Your task to perform on an android device: toggle wifi Image 0: 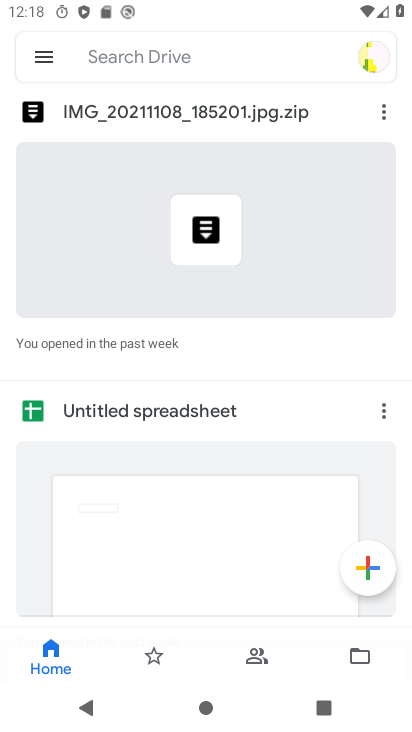
Step 0: press home button
Your task to perform on an android device: toggle wifi Image 1: 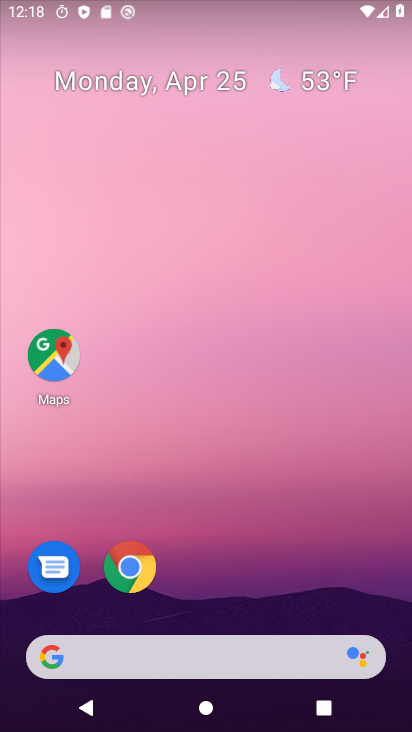
Step 1: drag from (221, 542) to (224, 17)
Your task to perform on an android device: toggle wifi Image 2: 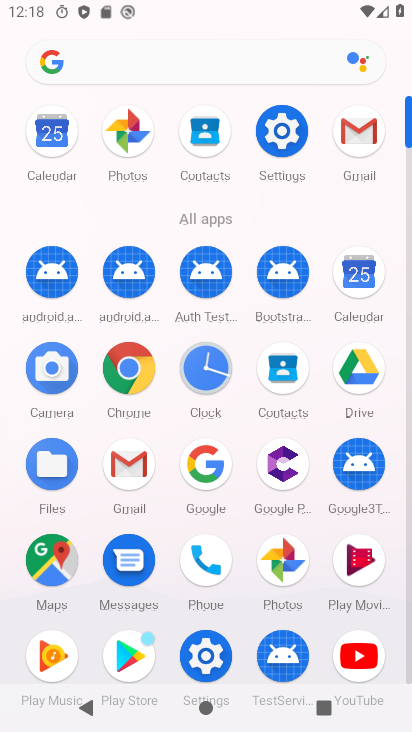
Step 2: click (279, 122)
Your task to perform on an android device: toggle wifi Image 3: 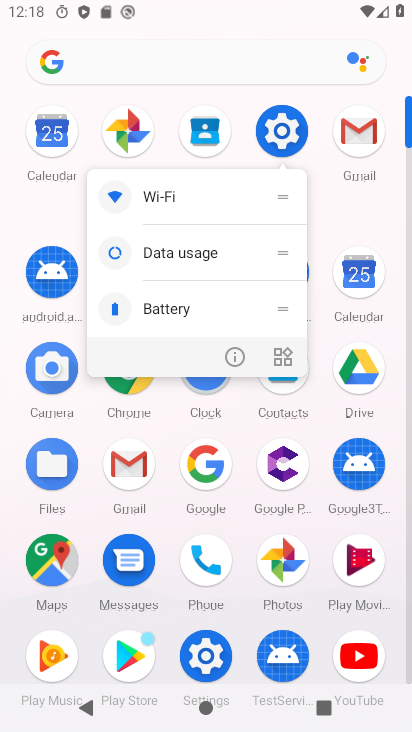
Step 3: click (279, 122)
Your task to perform on an android device: toggle wifi Image 4: 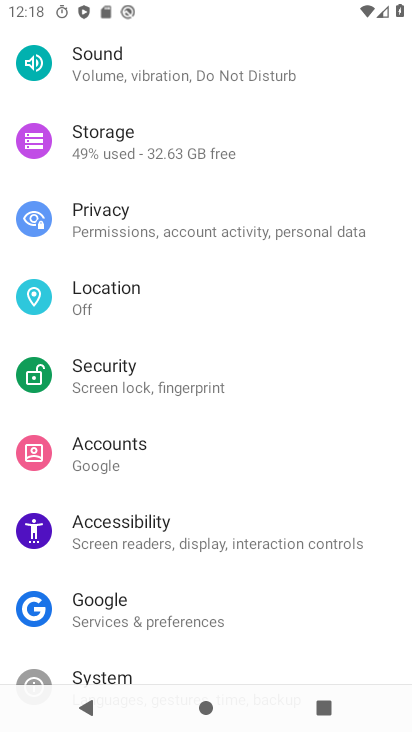
Step 4: drag from (279, 122) to (265, 573)
Your task to perform on an android device: toggle wifi Image 5: 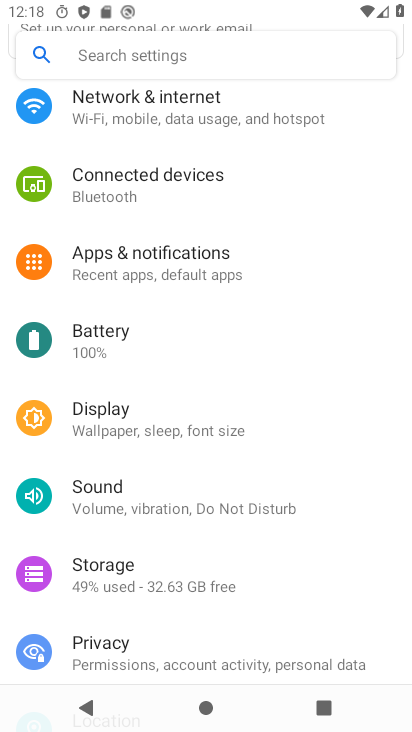
Step 5: click (245, 117)
Your task to perform on an android device: toggle wifi Image 6: 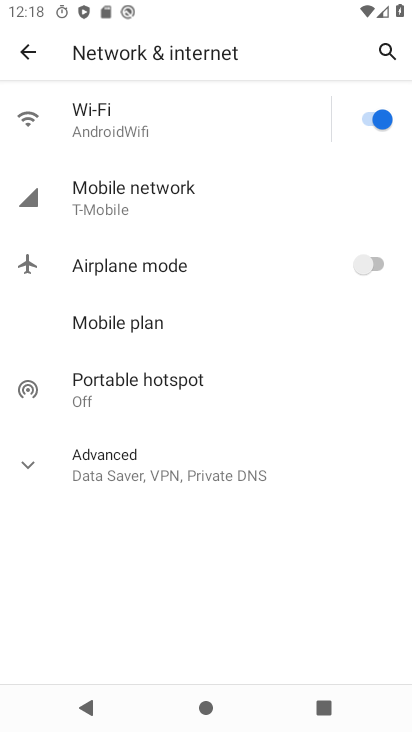
Step 6: click (364, 110)
Your task to perform on an android device: toggle wifi Image 7: 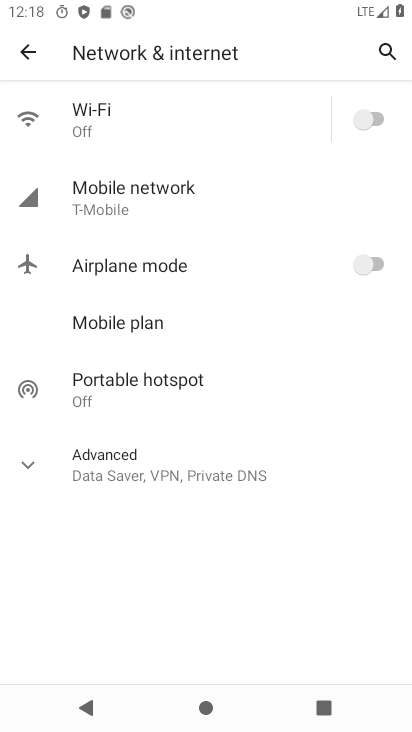
Step 7: task complete